Your task to perform on an android device: open the mobile data screen to see how much data has been used Image 0: 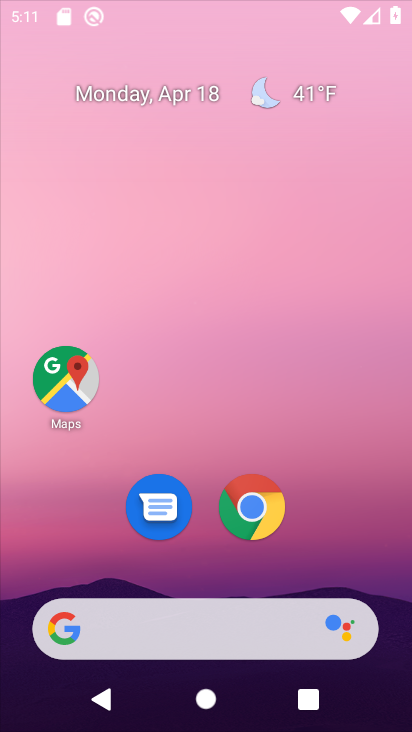
Step 0: click (289, 35)
Your task to perform on an android device: open the mobile data screen to see how much data has been used Image 1: 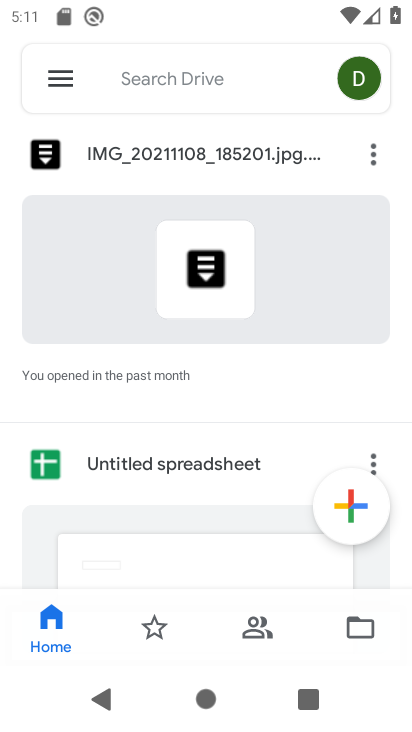
Step 1: press home button
Your task to perform on an android device: open the mobile data screen to see how much data has been used Image 2: 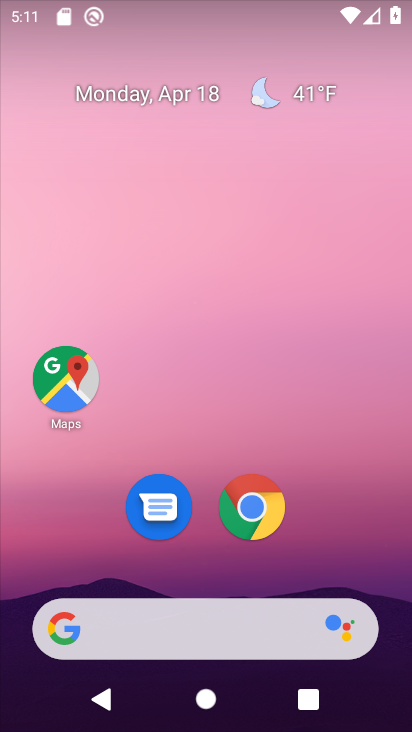
Step 2: drag from (169, 466) to (144, 18)
Your task to perform on an android device: open the mobile data screen to see how much data has been used Image 3: 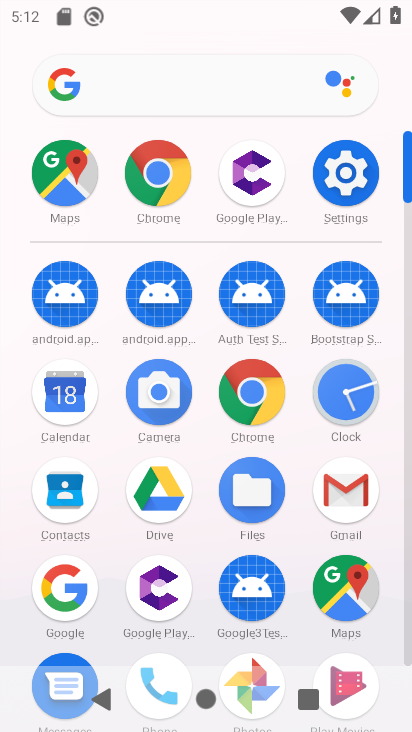
Step 3: click (330, 164)
Your task to perform on an android device: open the mobile data screen to see how much data has been used Image 4: 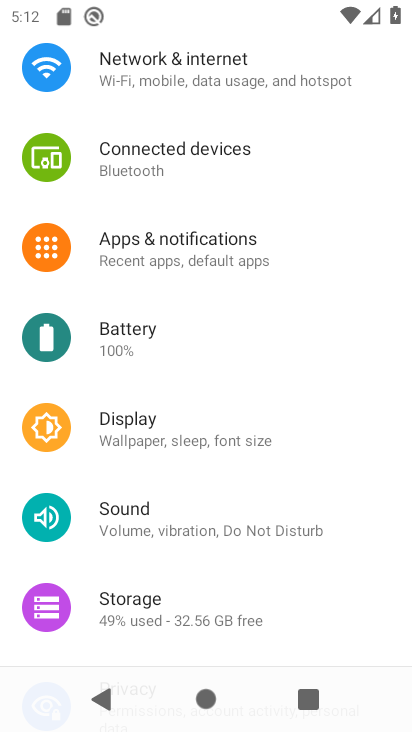
Step 4: drag from (182, 126) to (192, 578)
Your task to perform on an android device: open the mobile data screen to see how much data has been used Image 5: 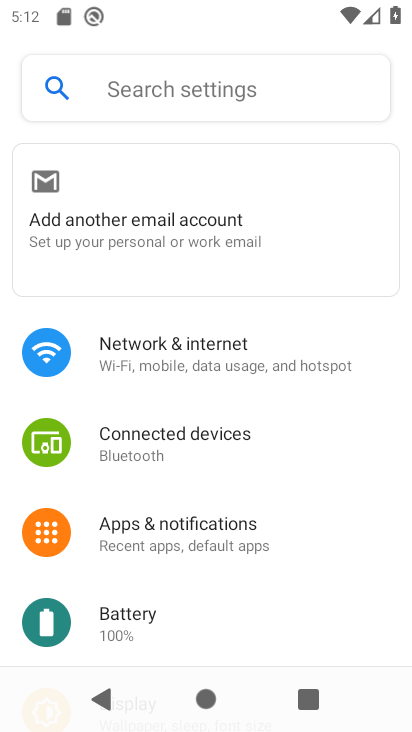
Step 5: click (192, 361)
Your task to perform on an android device: open the mobile data screen to see how much data has been used Image 6: 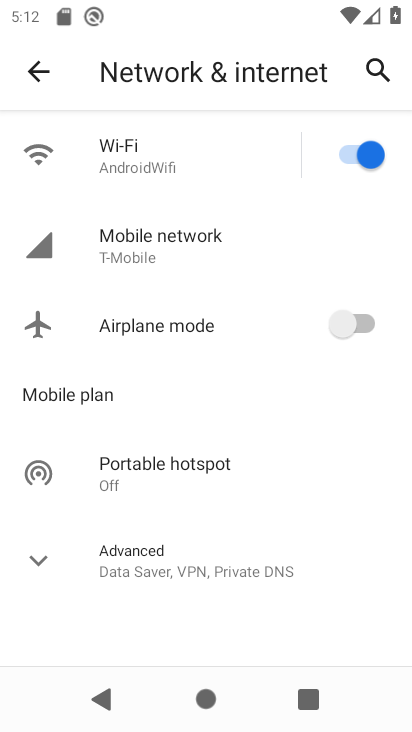
Step 6: click (196, 249)
Your task to perform on an android device: open the mobile data screen to see how much data has been used Image 7: 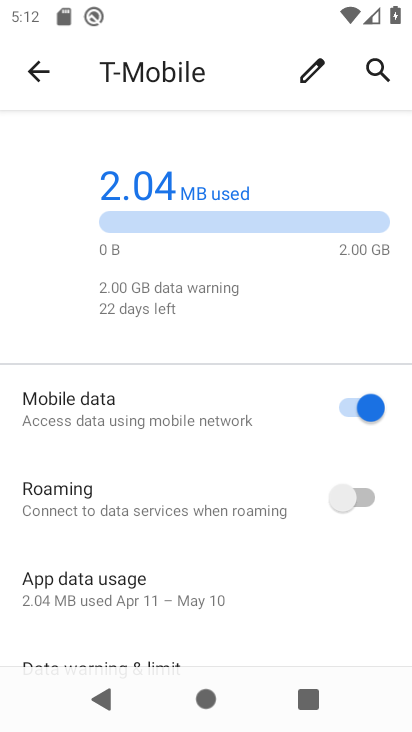
Step 7: task complete